Your task to perform on an android device: Turn off the flashlight Image 0: 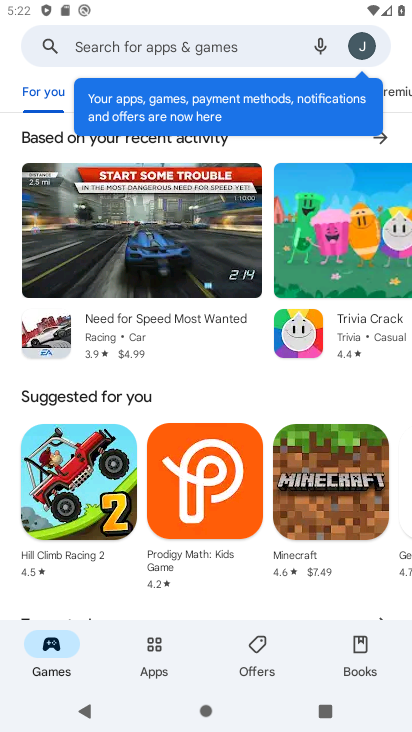
Step 0: press home button
Your task to perform on an android device: Turn off the flashlight Image 1: 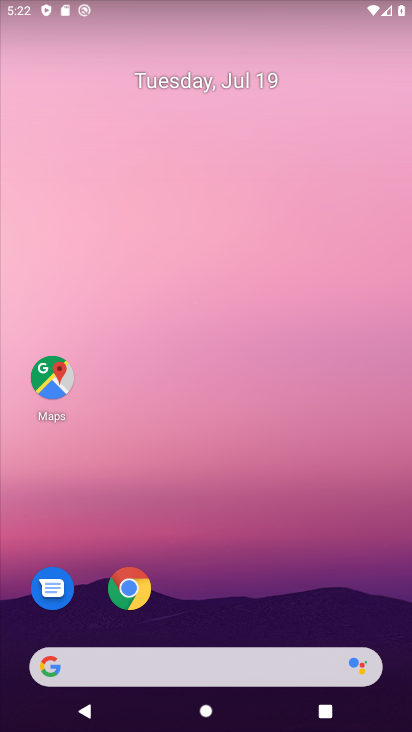
Step 1: drag from (194, 582) to (132, 162)
Your task to perform on an android device: Turn off the flashlight Image 2: 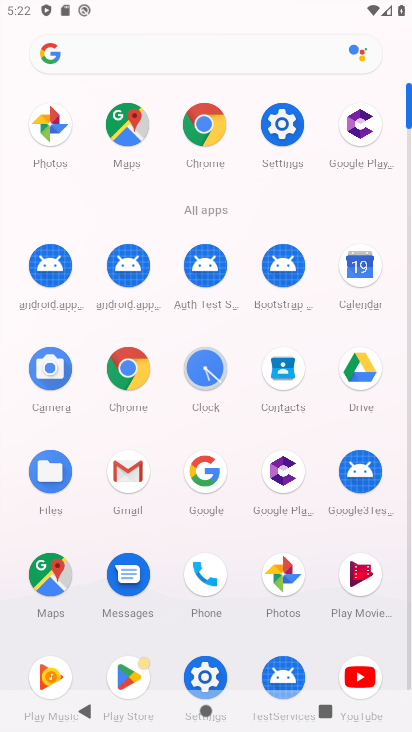
Step 2: drag from (219, 546) to (279, 113)
Your task to perform on an android device: Turn off the flashlight Image 3: 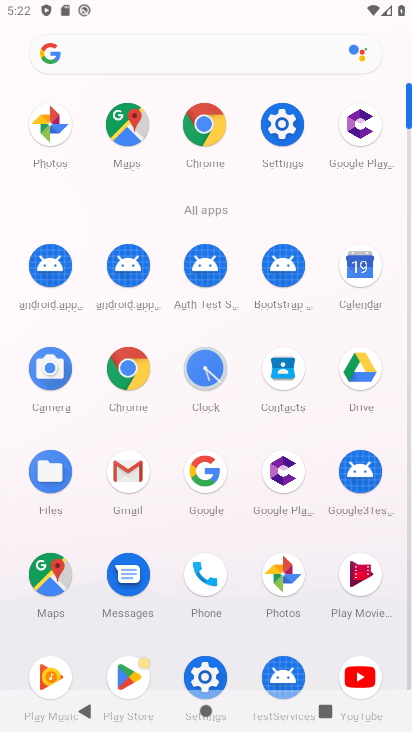
Step 3: click (285, 114)
Your task to perform on an android device: Turn off the flashlight Image 4: 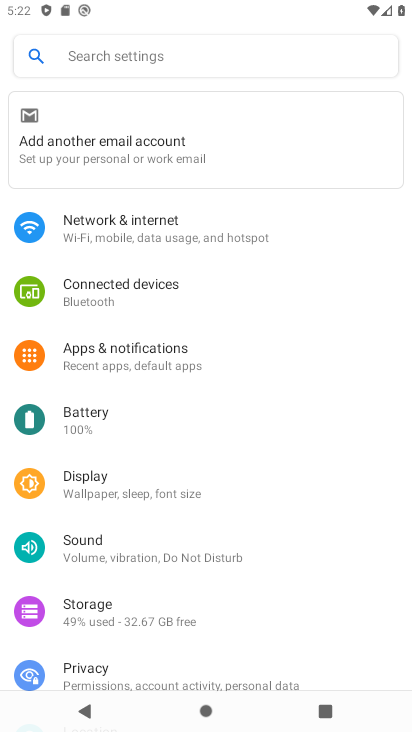
Step 4: task complete